Your task to perform on an android device: Open eBay Image 0: 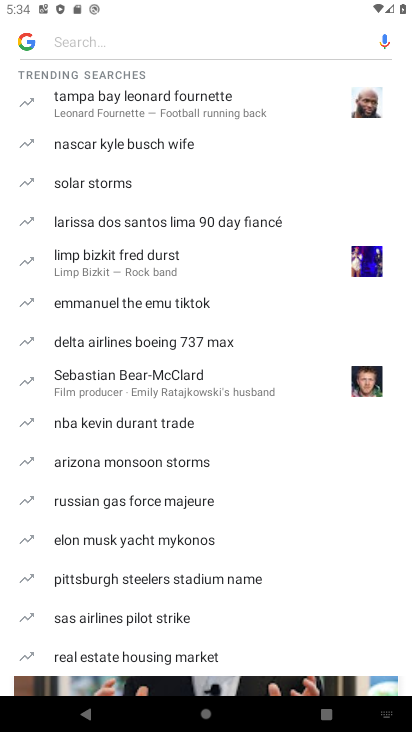
Step 0: press home button
Your task to perform on an android device: Open eBay Image 1: 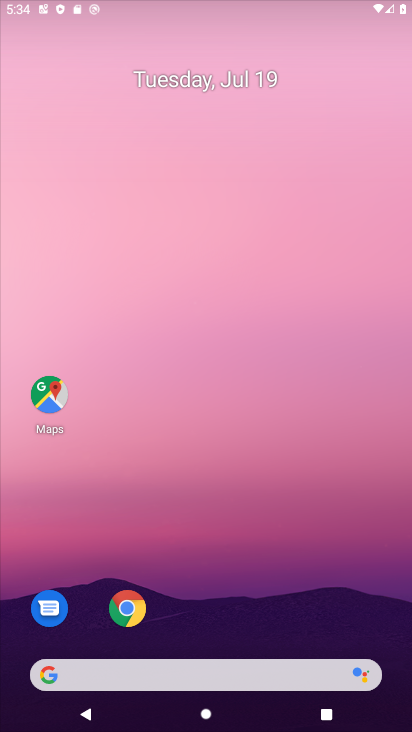
Step 1: drag from (189, 526) to (256, 7)
Your task to perform on an android device: Open eBay Image 2: 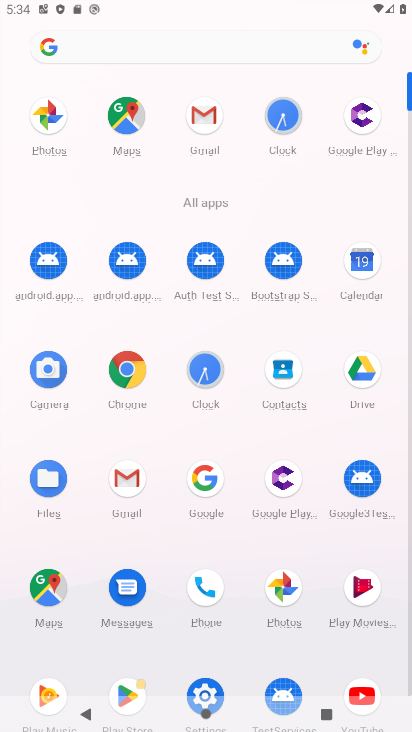
Step 2: click (116, 366)
Your task to perform on an android device: Open eBay Image 3: 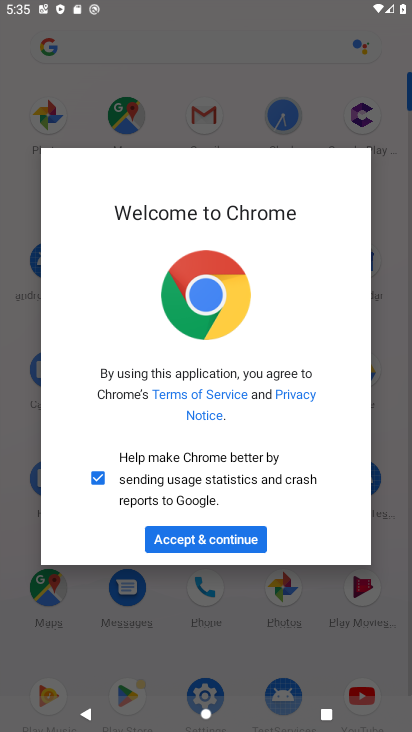
Step 3: click (257, 543)
Your task to perform on an android device: Open eBay Image 4: 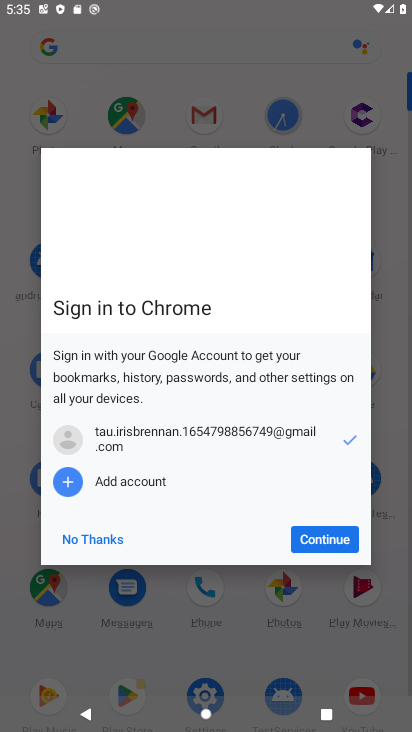
Step 4: click (98, 537)
Your task to perform on an android device: Open eBay Image 5: 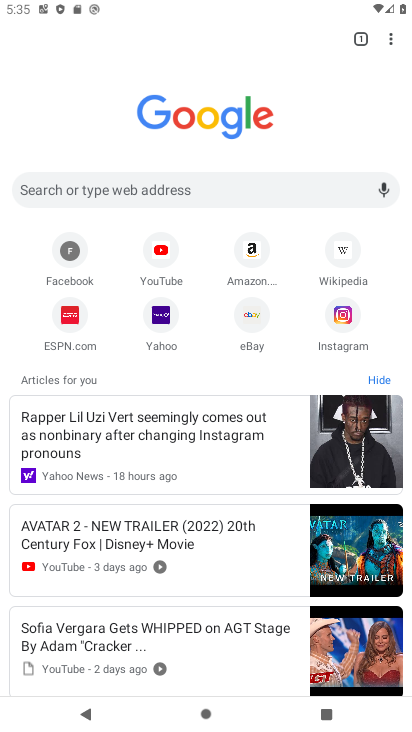
Step 5: click (256, 323)
Your task to perform on an android device: Open eBay Image 6: 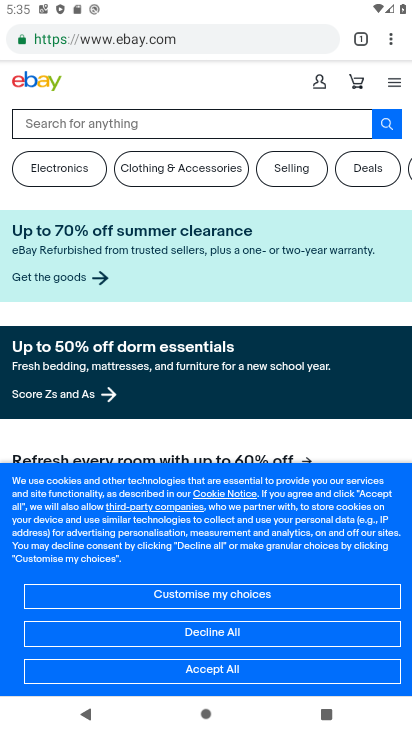
Step 6: task complete